Your task to perform on an android device: Do I have any events today? Image 0: 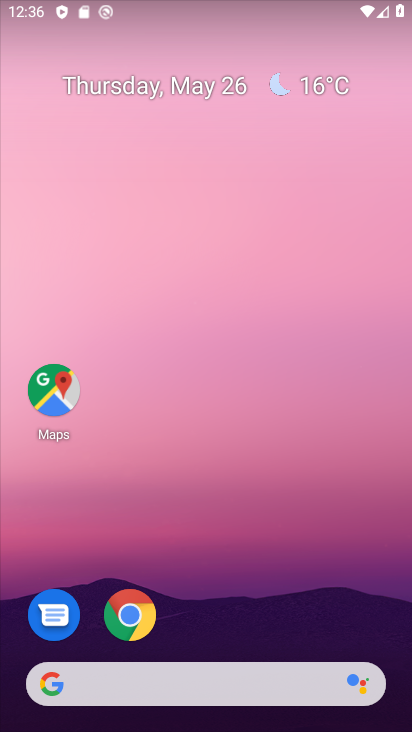
Step 0: click (189, 627)
Your task to perform on an android device: Do I have any events today? Image 1: 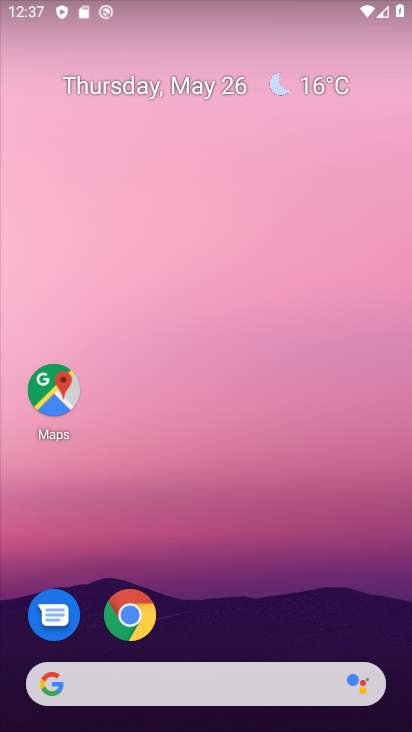
Step 1: drag from (220, 640) to (217, 196)
Your task to perform on an android device: Do I have any events today? Image 2: 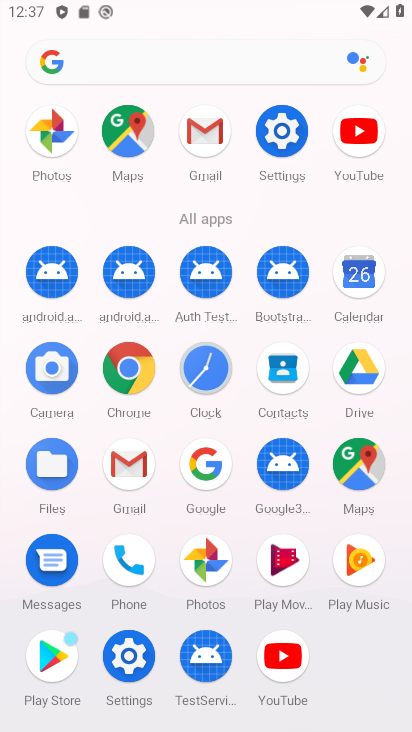
Step 2: click (367, 267)
Your task to perform on an android device: Do I have any events today? Image 3: 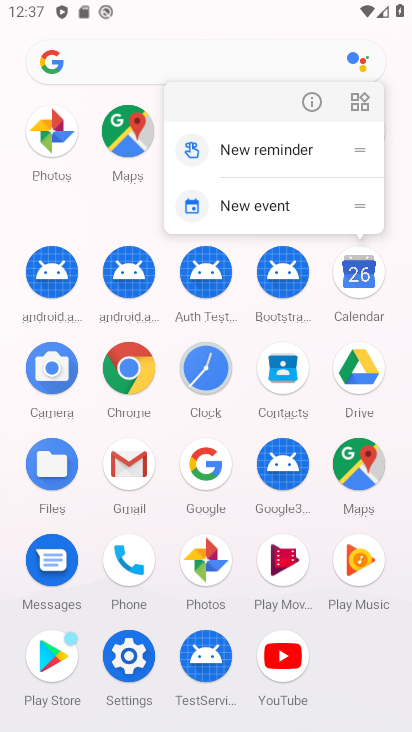
Step 3: click (315, 105)
Your task to perform on an android device: Do I have any events today? Image 4: 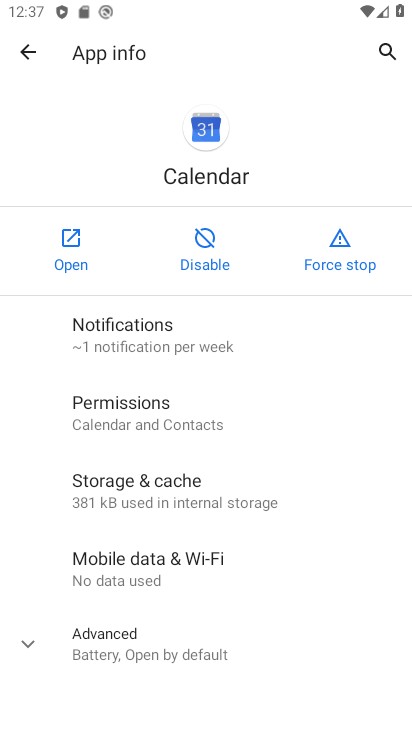
Step 4: click (85, 268)
Your task to perform on an android device: Do I have any events today? Image 5: 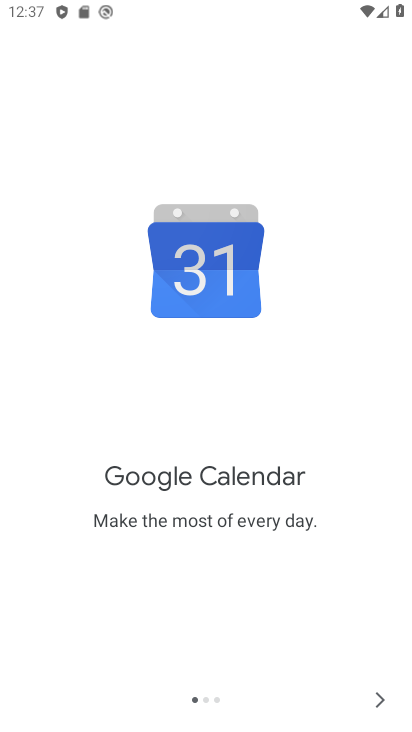
Step 5: click (391, 685)
Your task to perform on an android device: Do I have any events today? Image 6: 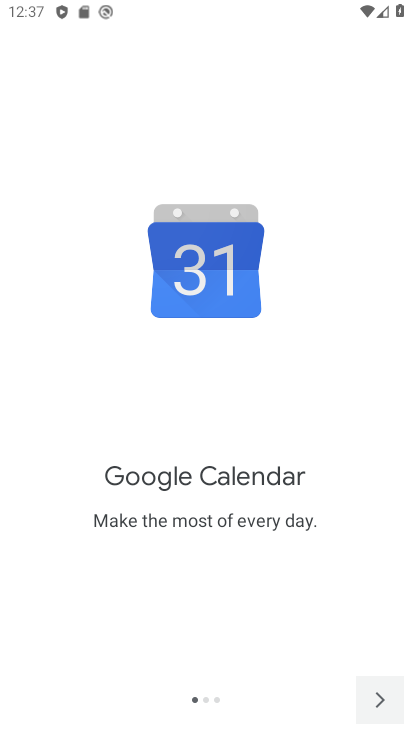
Step 6: click (389, 688)
Your task to perform on an android device: Do I have any events today? Image 7: 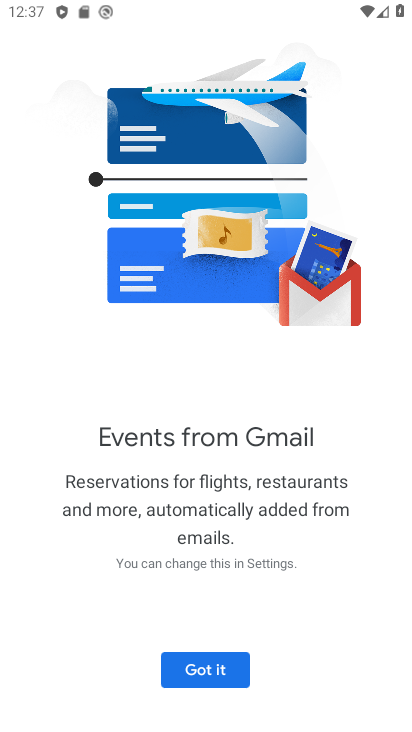
Step 7: click (380, 688)
Your task to perform on an android device: Do I have any events today? Image 8: 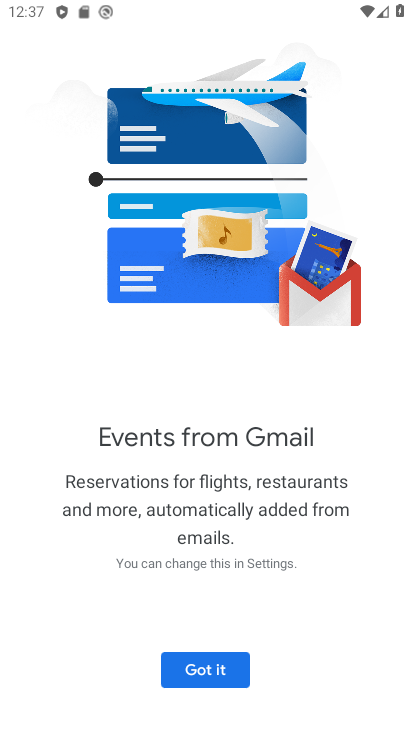
Step 8: click (221, 671)
Your task to perform on an android device: Do I have any events today? Image 9: 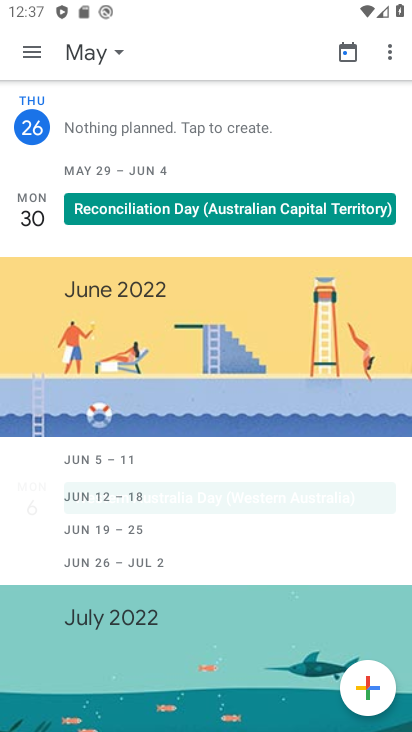
Step 9: drag from (306, 555) to (261, 323)
Your task to perform on an android device: Do I have any events today? Image 10: 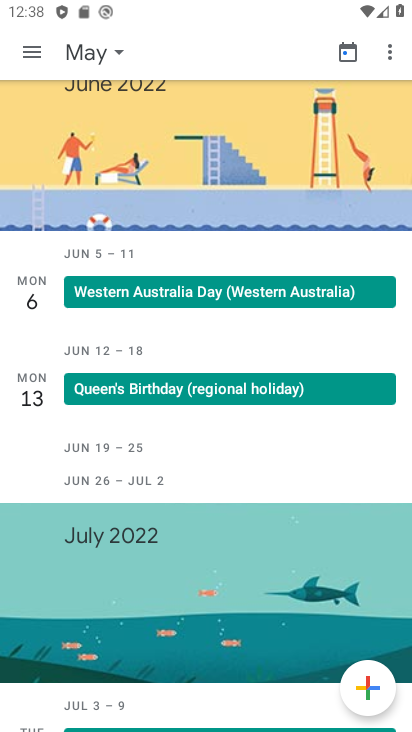
Step 10: drag from (289, 558) to (14, 4)
Your task to perform on an android device: Do I have any events today? Image 11: 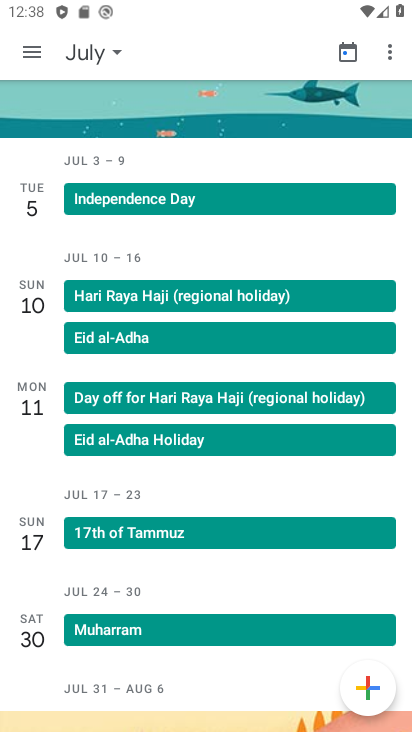
Step 11: click (105, 57)
Your task to perform on an android device: Do I have any events today? Image 12: 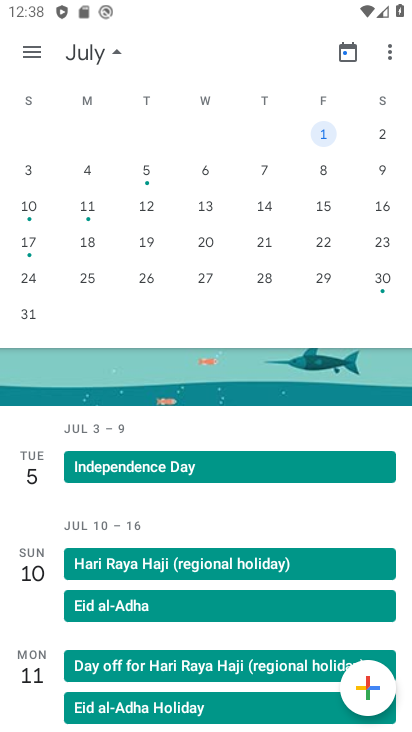
Step 12: click (317, 127)
Your task to perform on an android device: Do I have any events today? Image 13: 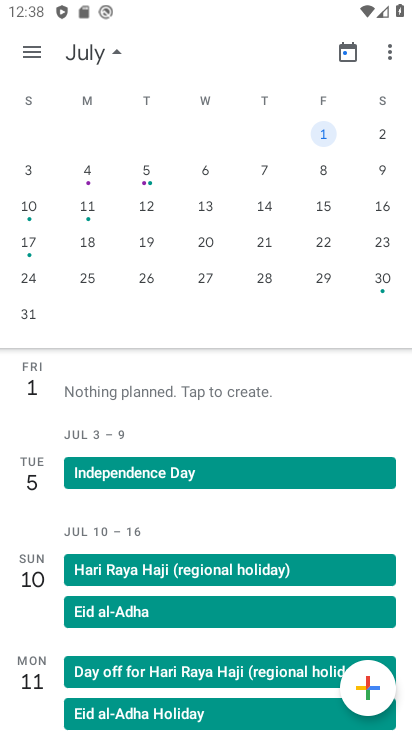
Step 13: drag from (83, 235) to (411, 206)
Your task to perform on an android device: Do I have any events today? Image 14: 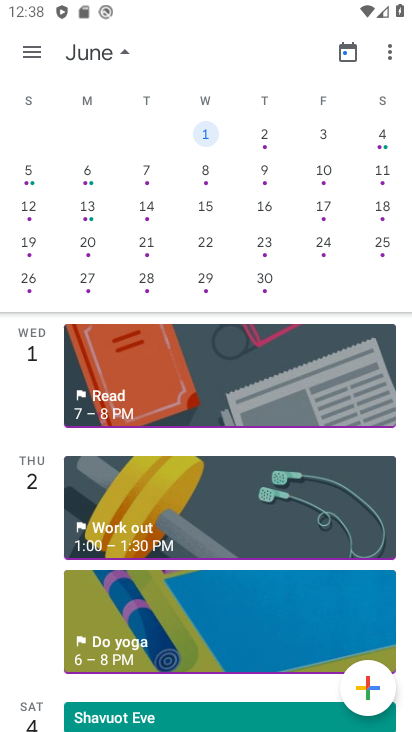
Step 14: drag from (33, 234) to (402, 214)
Your task to perform on an android device: Do I have any events today? Image 15: 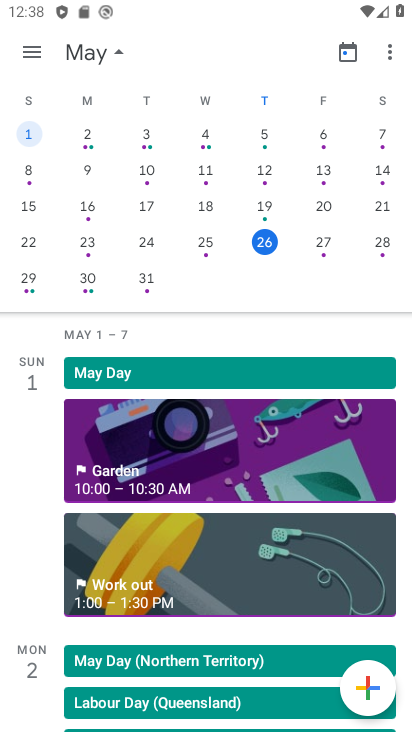
Step 15: click (220, 247)
Your task to perform on an android device: Do I have any events today? Image 16: 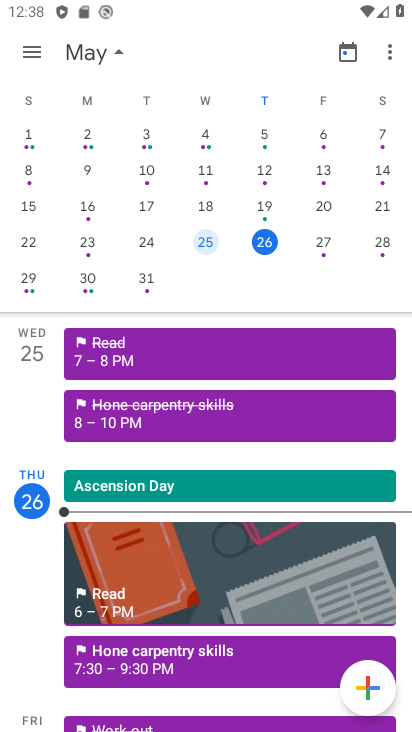
Step 16: click (265, 236)
Your task to perform on an android device: Do I have any events today? Image 17: 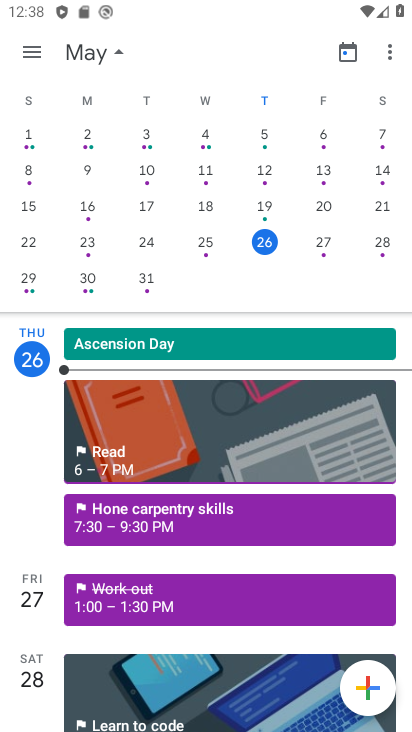
Step 17: task complete